Your task to perform on an android device: open chrome privacy settings Image 0: 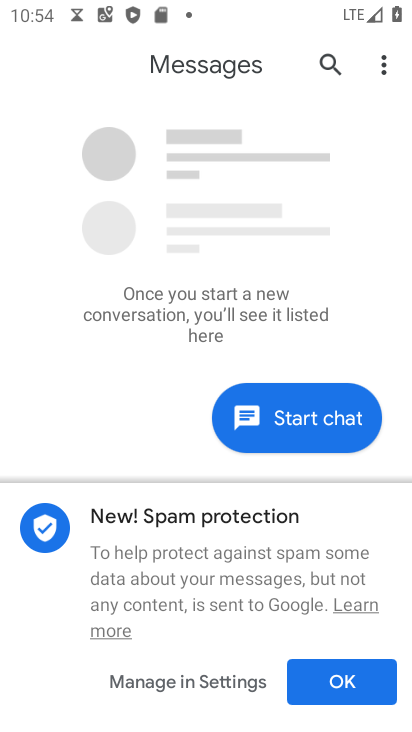
Step 0: press home button
Your task to perform on an android device: open chrome privacy settings Image 1: 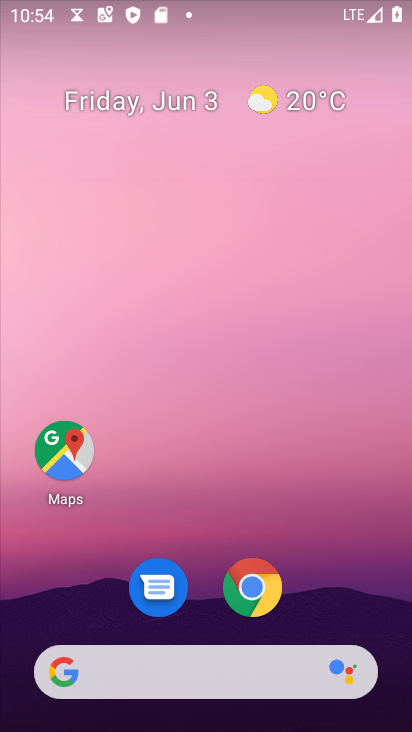
Step 1: click (253, 589)
Your task to perform on an android device: open chrome privacy settings Image 2: 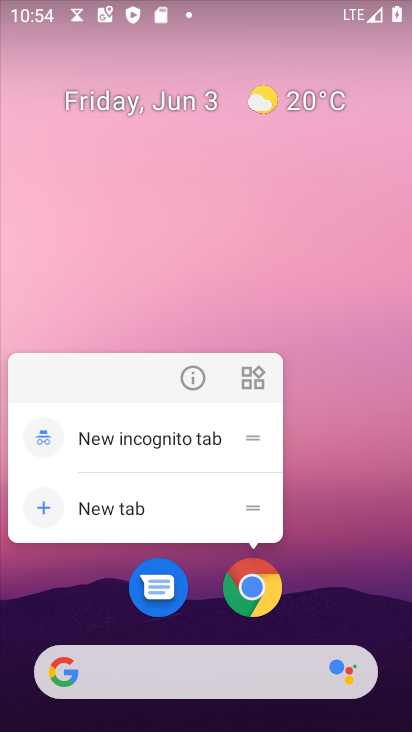
Step 2: click (269, 590)
Your task to perform on an android device: open chrome privacy settings Image 3: 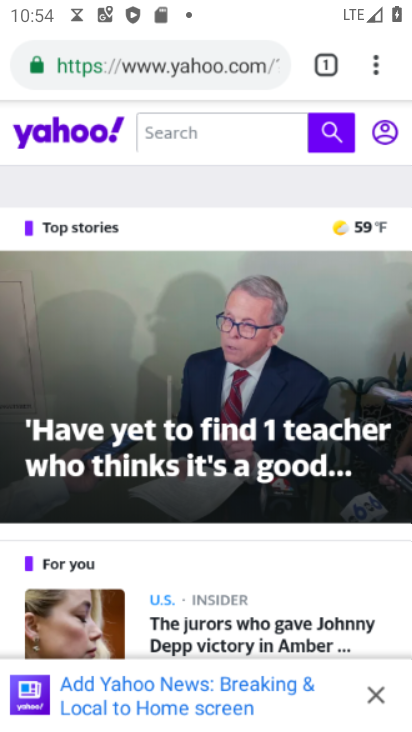
Step 3: click (368, 68)
Your task to perform on an android device: open chrome privacy settings Image 4: 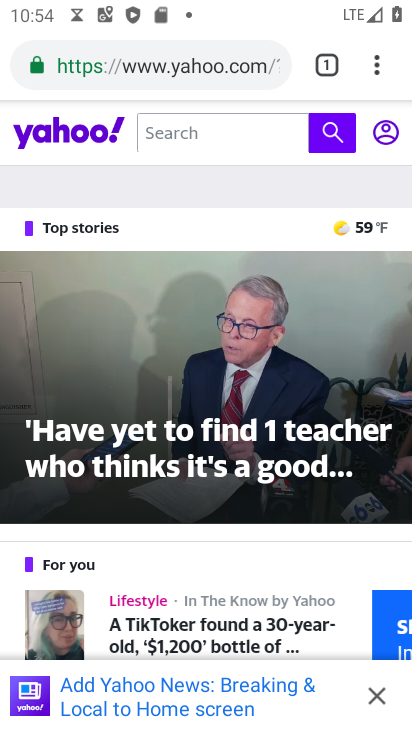
Step 4: click (370, 65)
Your task to perform on an android device: open chrome privacy settings Image 5: 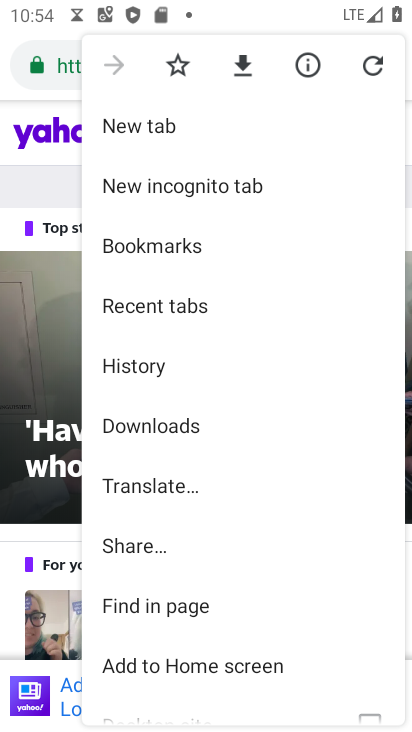
Step 5: drag from (246, 591) to (209, 48)
Your task to perform on an android device: open chrome privacy settings Image 6: 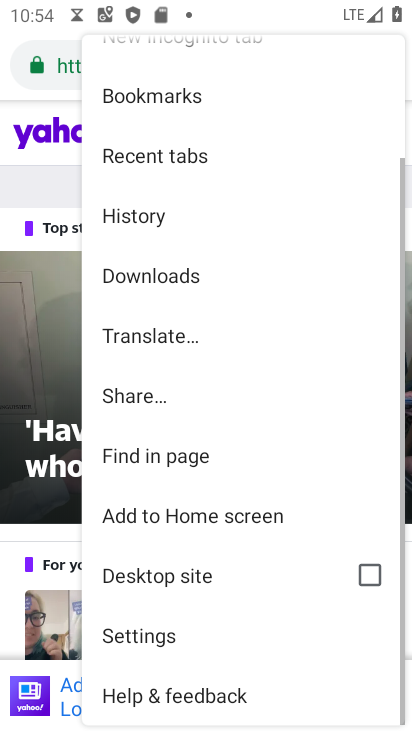
Step 6: click (222, 636)
Your task to perform on an android device: open chrome privacy settings Image 7: 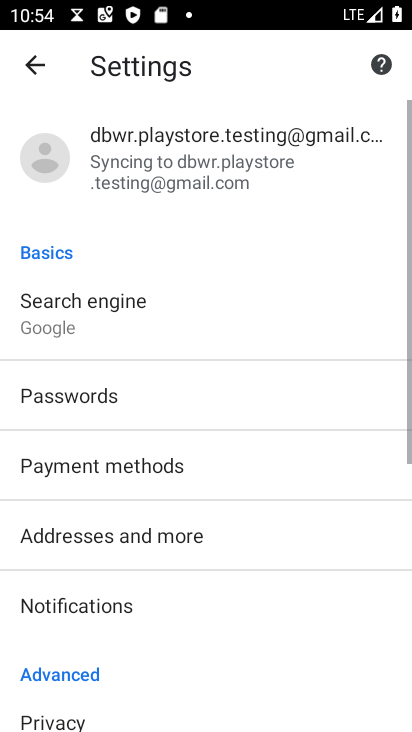
Step 7: click (176, 197)
Your task to perform on an android device: open chrome privacy settings Image 8: 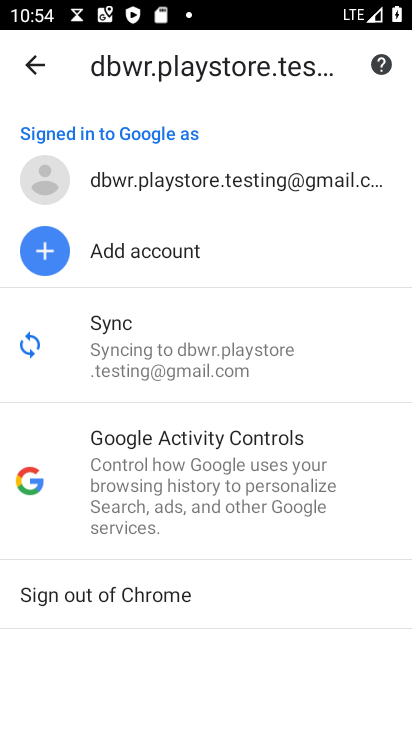
Step 8: click (45, 62)
Your task to perform on an android device: open chrome privacy settings Image 9: 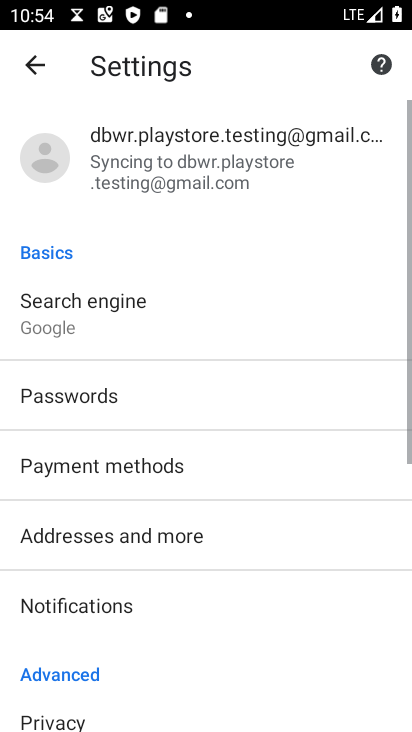
Step 9: click (114, 725)
Your task to perform on an android device: open chrome privacy settings Image 10: 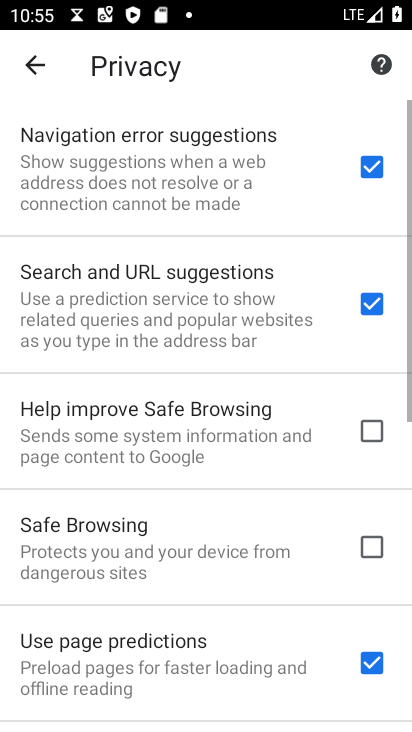
Step 10: task complete